Your task to perform on an android device: change notifications settings Image 0: 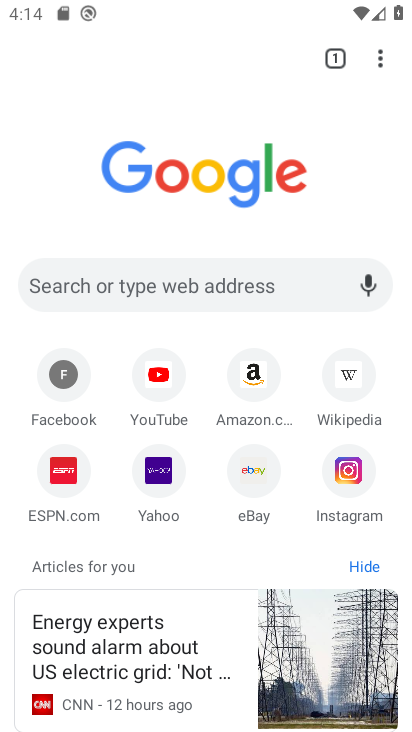
Step 0: drag from (378, 70) to (201, 531)
Your task to perform on an android device: change notifications settings Image 1: 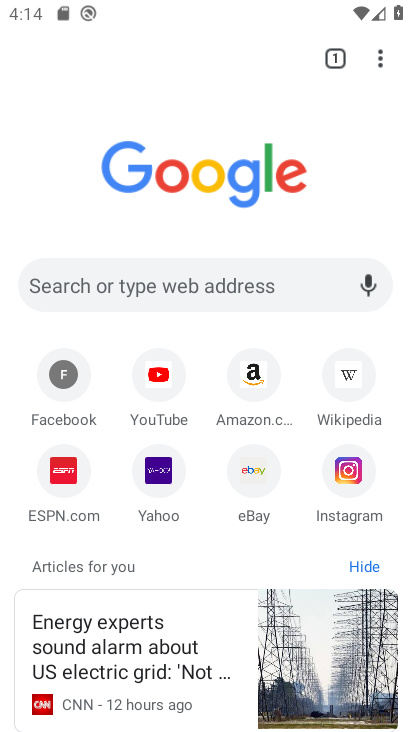
Step 1: press back button
Your task to perform on an android device: change notifications settings Image 2: 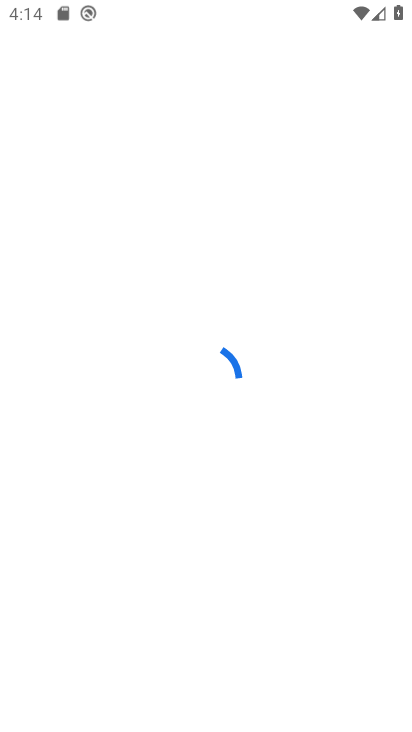
Step 2: press back button
Your task to perform on an android device: change notifications settings Image 3: 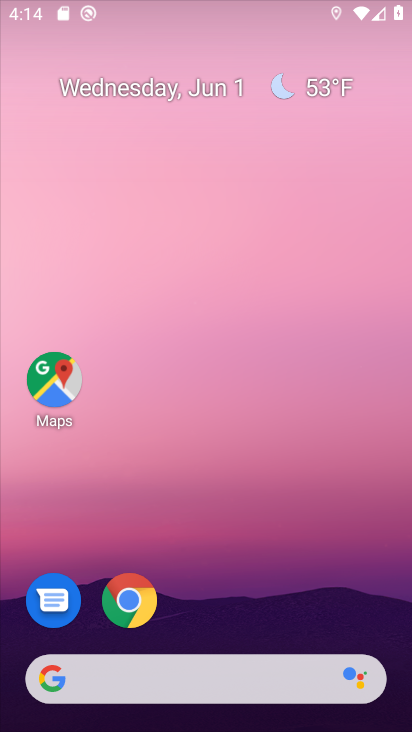
Step 3: press home button
Your task to perform on an android device: change notifications settings Image 4: 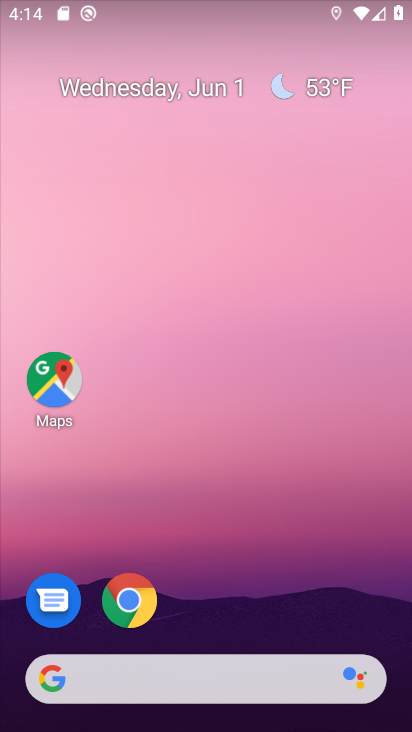
Step 4: drag from (197, 662) to (188, 202)
Your task to perform on an android device: change notifications settings Image 5: 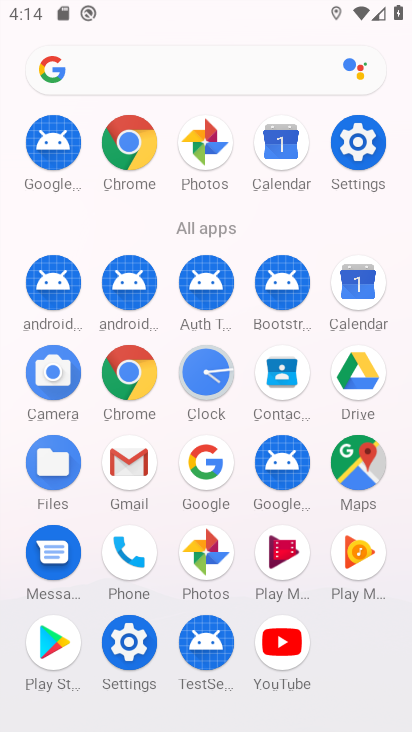
Step 5: click (358, 144)
Your task to perform on an android device: change notifications settings Image 6: 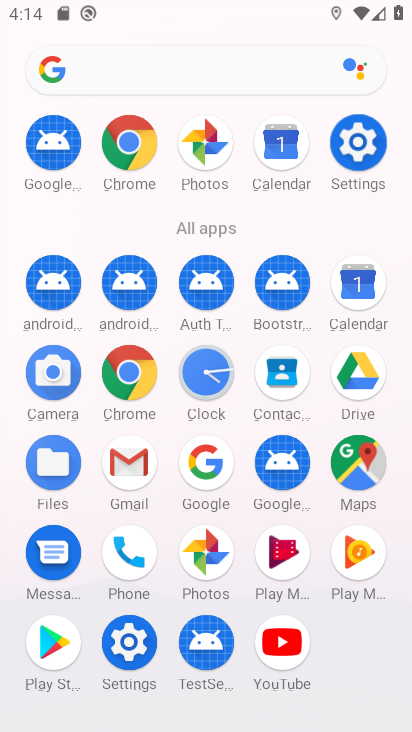
Step 6: click (358, 144)
Your task to perform on an android device: change notifications settings Image 7: 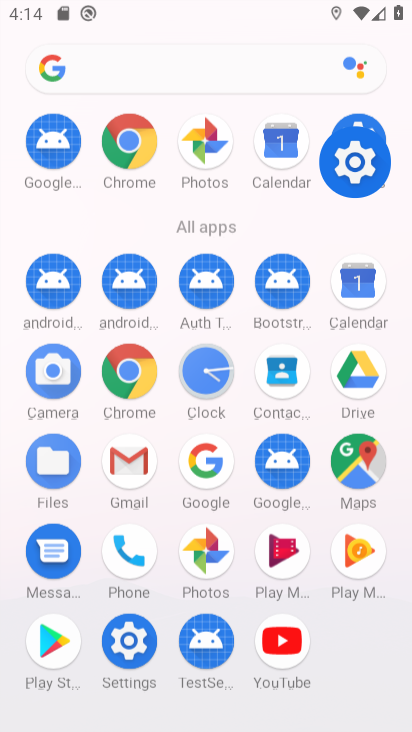
Step 7: click (358, 144)
Your task to perform on an android device: change notifications settings Image 8: 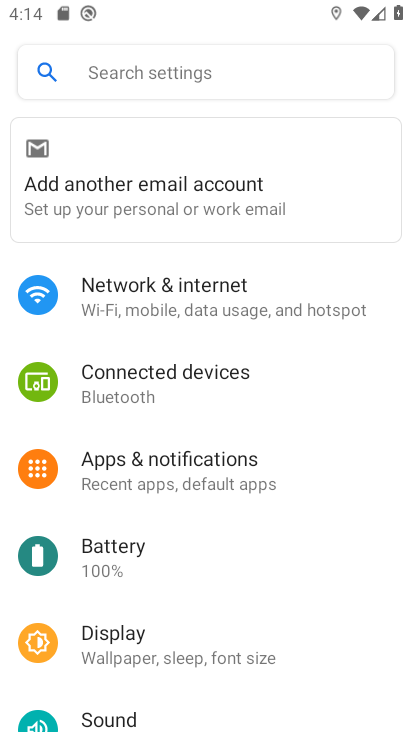
Step 8: click (163, 471)
Your task to perform on an android device: change notifications settings Image 9: 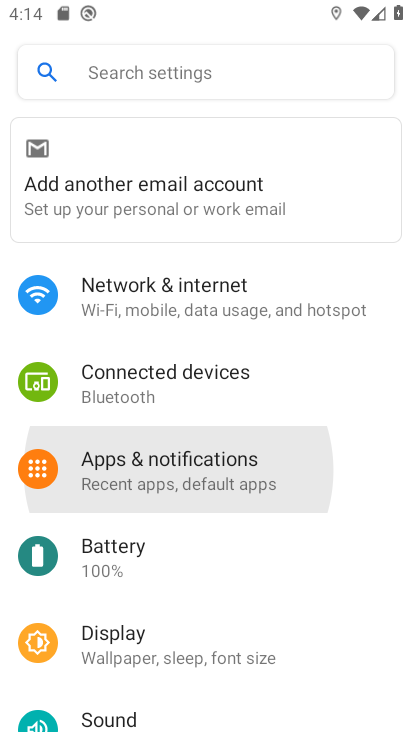
Step 9: click (162, 471)
Your task to perform on an android device: change notifications settings Image 10: 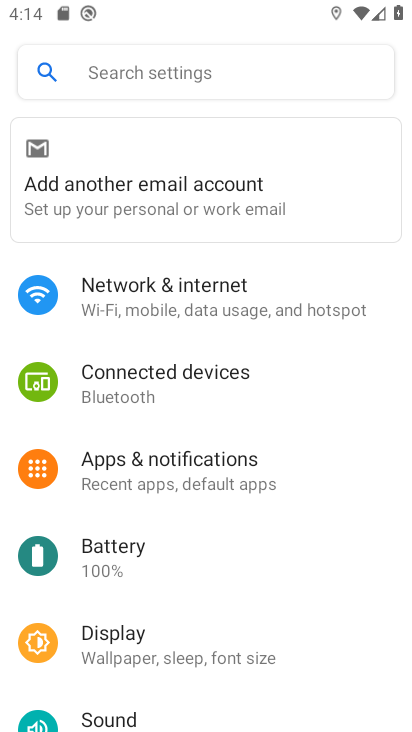
Step 10: click (161, 471)
Your task to perform on an android device: change notifications settings Image 11: 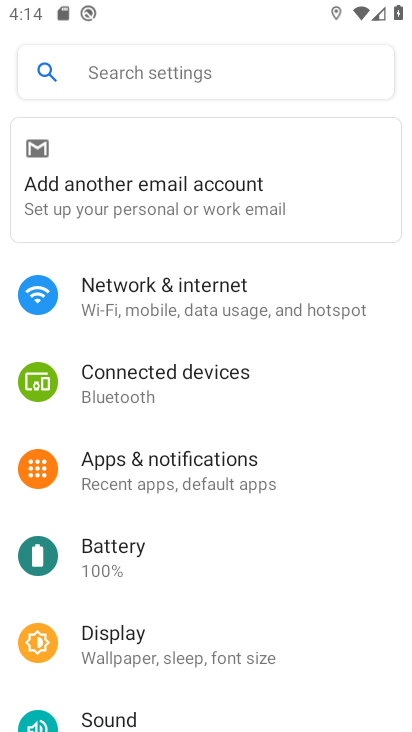
Step 11: click (161, 471)
Your task to perform on an android device: change notifications settings Image 12: 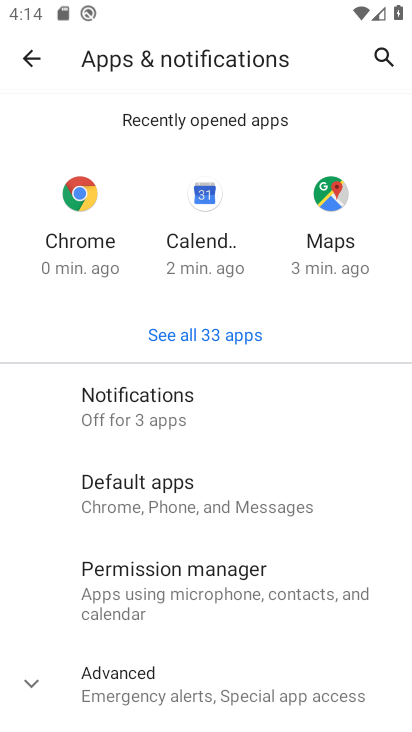
Step 12: click (130, 403)
Your task to perform on an android device: change notifications settings Image 13: 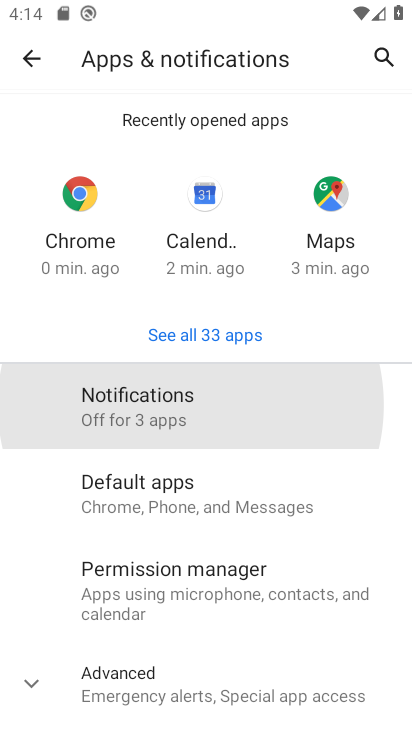
Step 13: click (128, 404)
Your task to perform on an android device: change notifications settings Image 14: 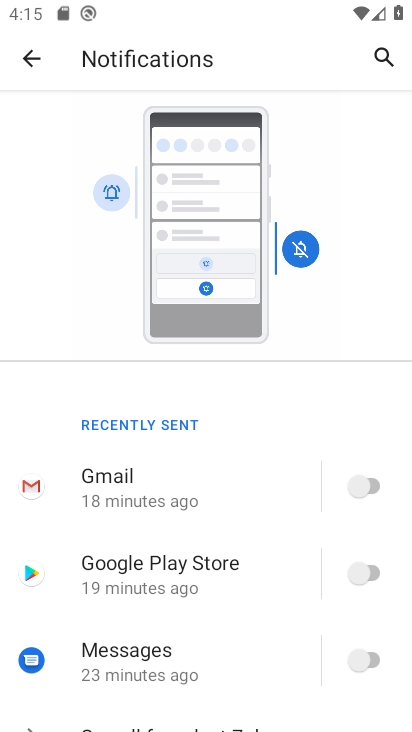
Step 14: drag from (210, 611) to (133, 206)
Your task to perform on an android device: change notifications settings Image 15: 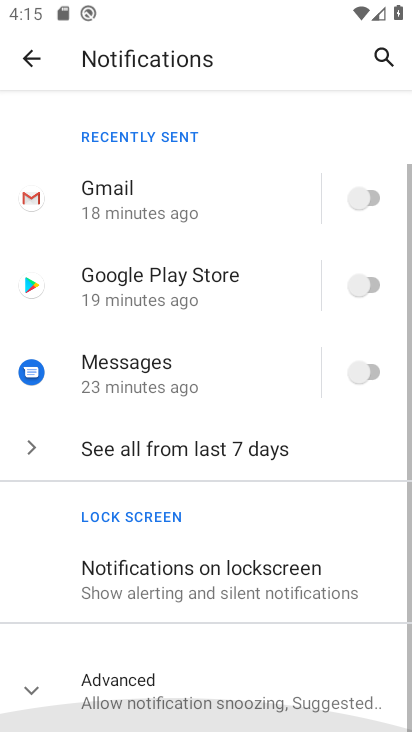
Step 15: drag from (186, 463) to (155, 146)
Your task to perform on an android device: change notifications settings Image 16: 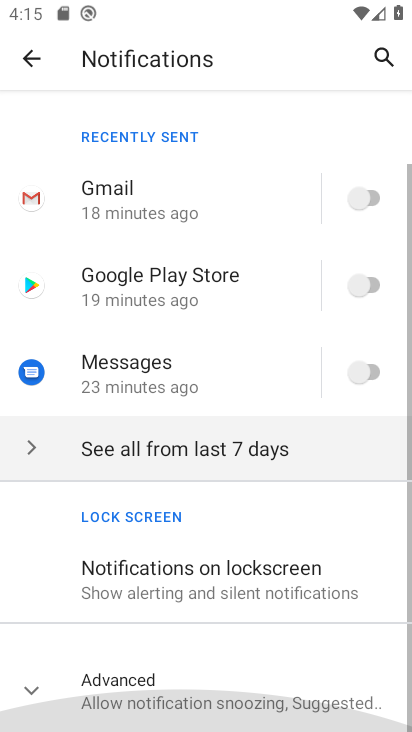
Step 16: drag from (211, 471) to (241, 301)
Your task to perform on an android device: change notifications settings Image 17: 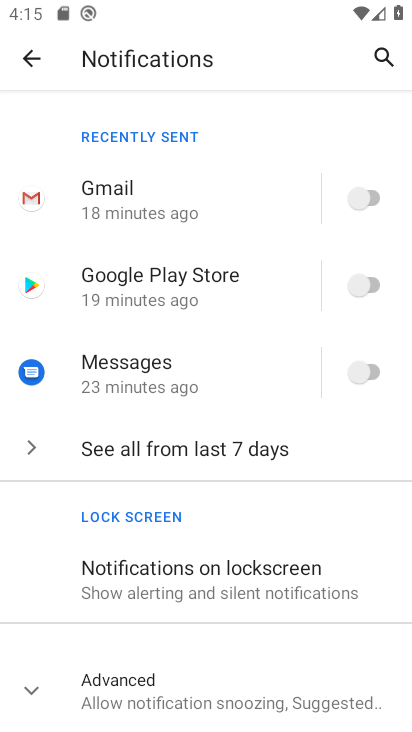
Step 17: click (368, 198)
Your task to perform on an android device: change notifications settings Image 18: 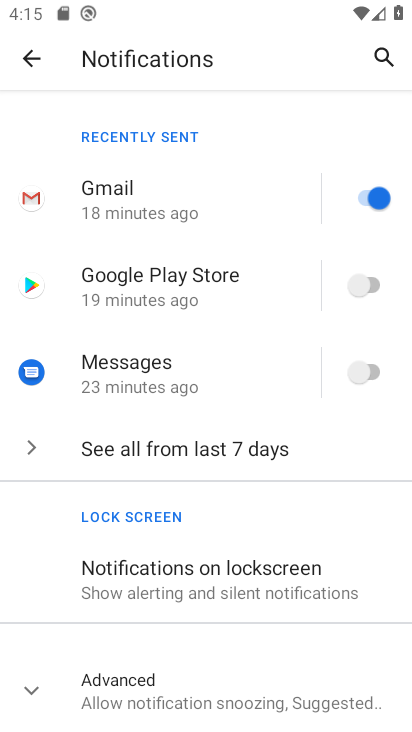
Step 18: click (366, 282)
Your task to perform on an android device: change notifications settings Image 19: 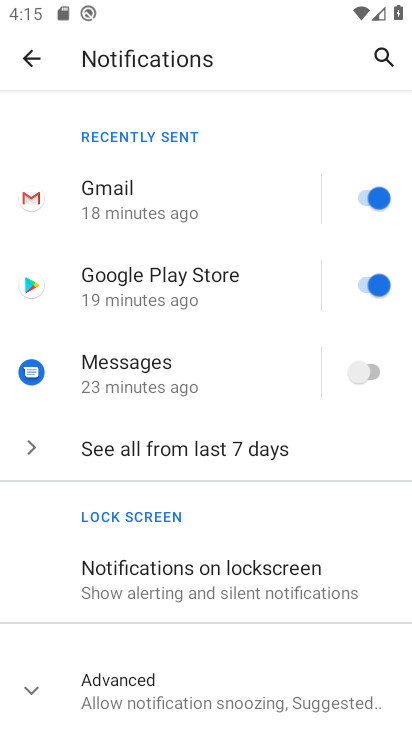
Step 19: click (364, 371)
Your task to perform on an android device: change notifications settings Image 20: 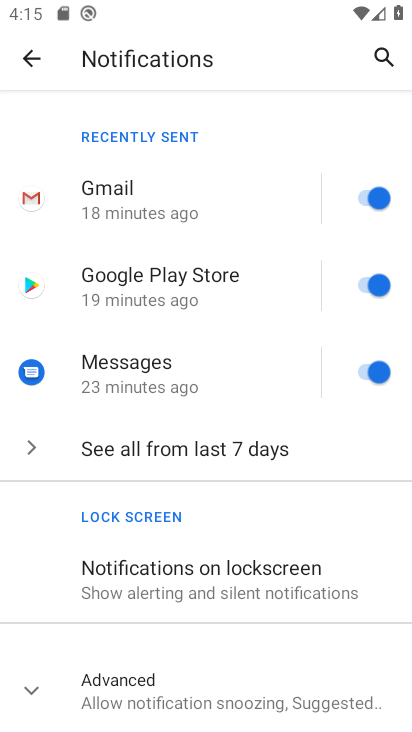
Step 20: task complete